Your task to perform on an android device: Go to wifi settings Image 0: 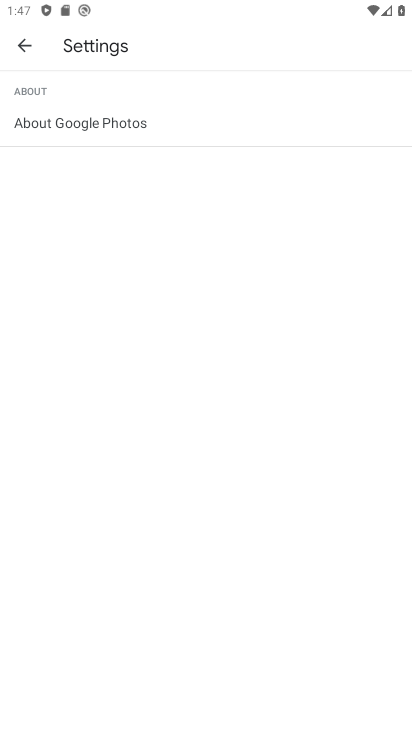
Step 0: press home button
Your task to perform on an android device: Go to wifi settings Image 1: 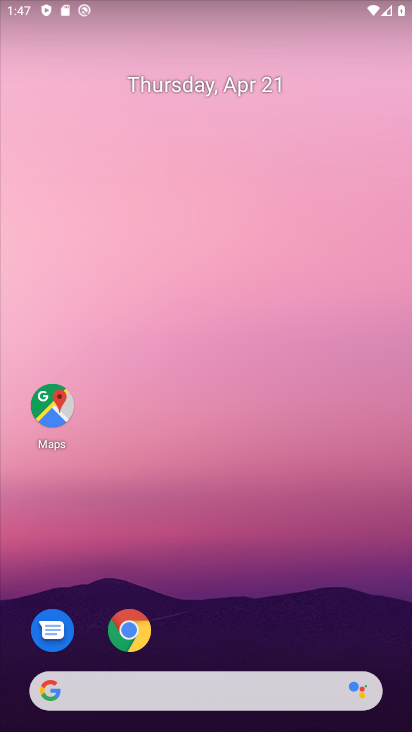
Step 1: drag from (371, 595) to (312, 6)
Your task to perform on an android device: Go to wifi settings Image 2: 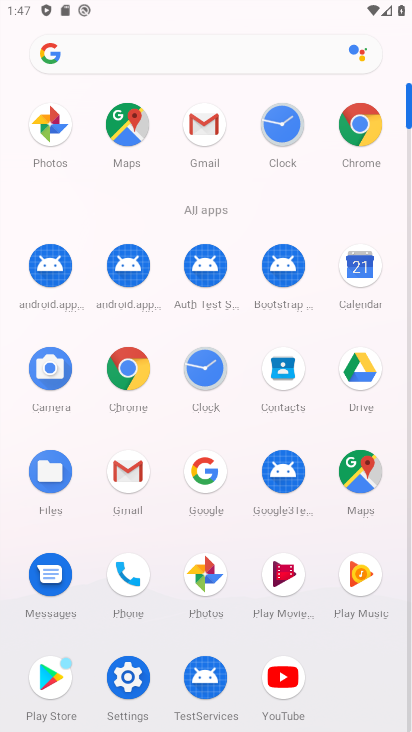
Step 2: click (132, 683)
Your task to perform on an android device: Go to wifi settings Image 3: 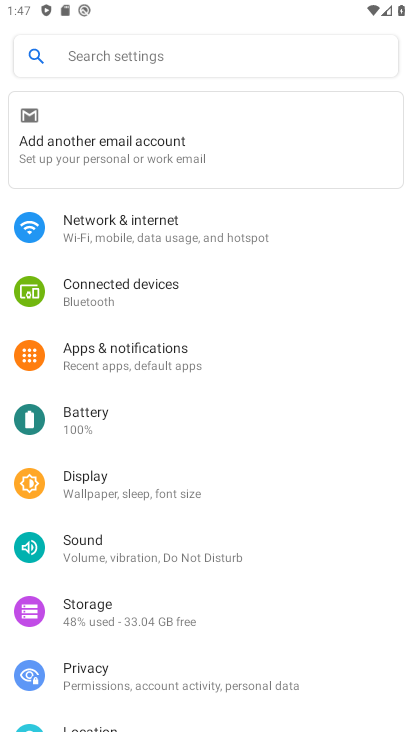
Step 3: click (123, 242)
Your task to perform on an android device: Go to wifi settings Image 4: 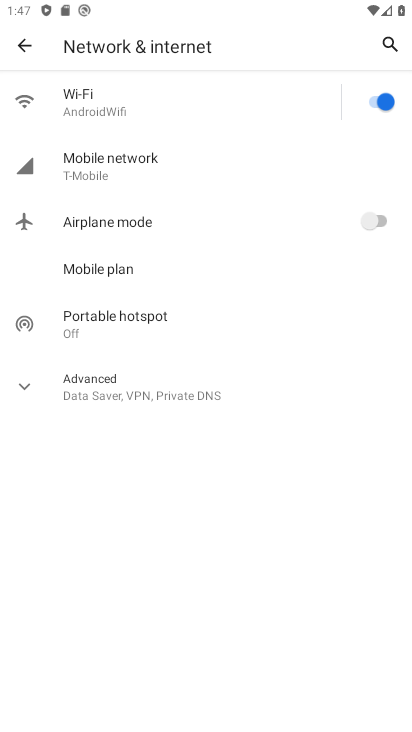
Step 4: click (113, 104)
Your task to perform on an android device: Go to wifi settings Image 5: 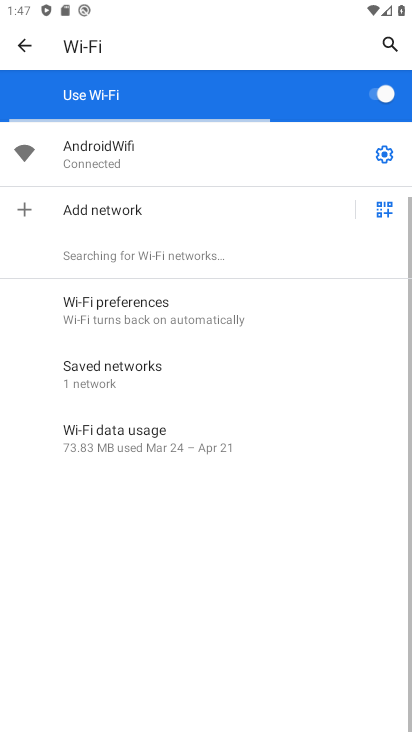
Step 5: task complete